Your task to perform on an android device: add a label to a message in the gmail app Image 0: 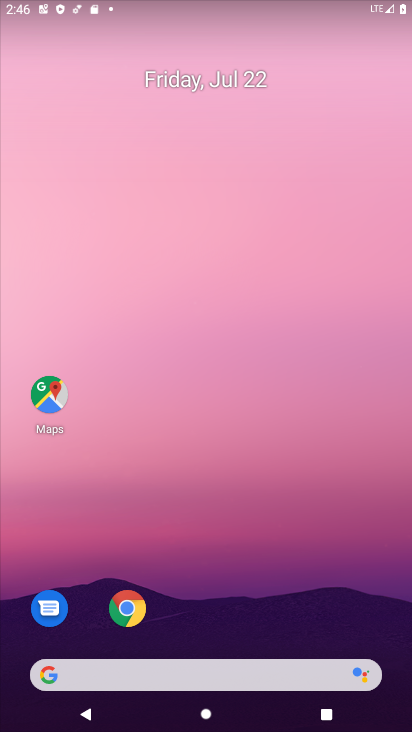
Step 0: drag from (301, 584) to (257, 139)
Your task to perform on an android device: add a label to a message in the gmail app Image 1: 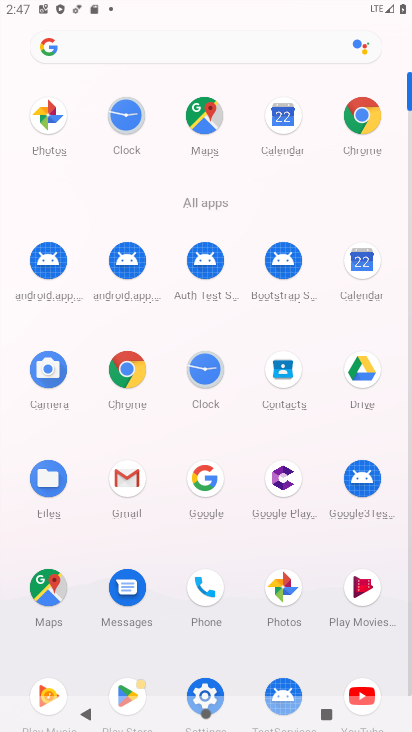
Step 1: click (121, 476)
Your task to perform on an android device: add a label to a message in the gmail app Image 2: 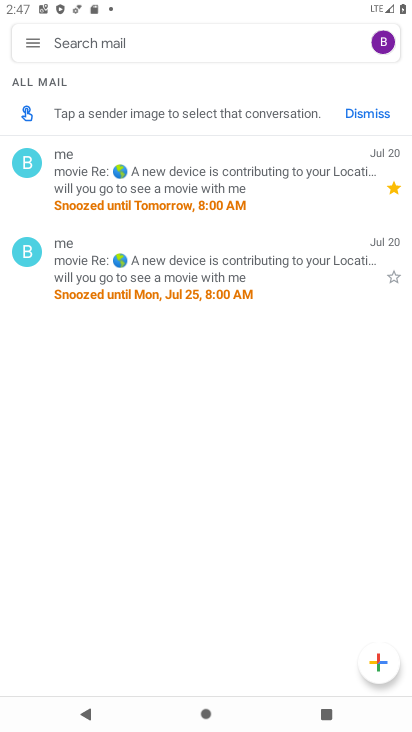
Step 2: click (191, 266)
Your task to perform on an android device: add a label to a message in the gmail app Image 3: 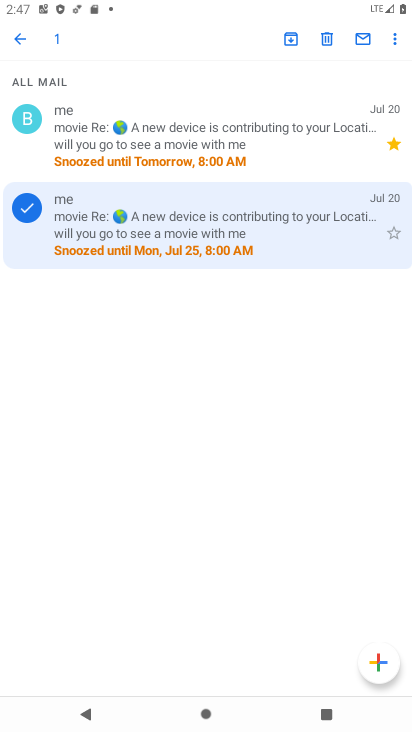
Step 3: click (397, 48)
Your task to perform on an android device: add a label to a message in the gmail app Image 4: 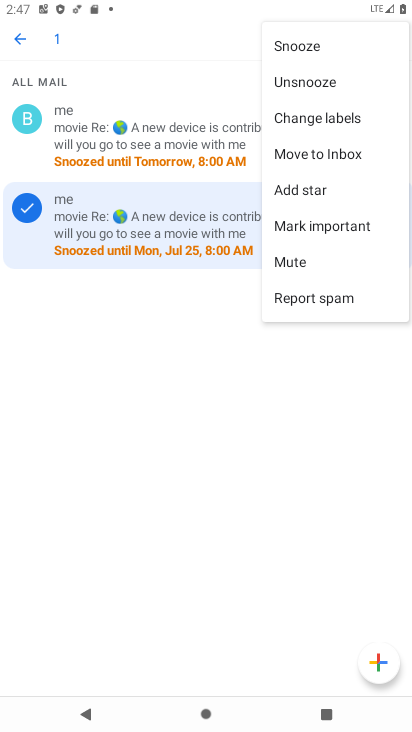
Step 4: click (347, 116)
Your task to perform on an android device: add a label to a message in the gmail app Image 5: 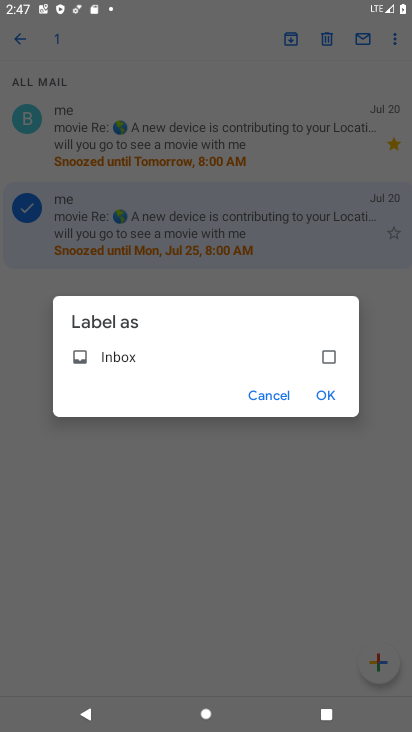
Step 5: click (331, 354)
Your task to perform on an android device: add a label to a message in the gmail app Image 6: 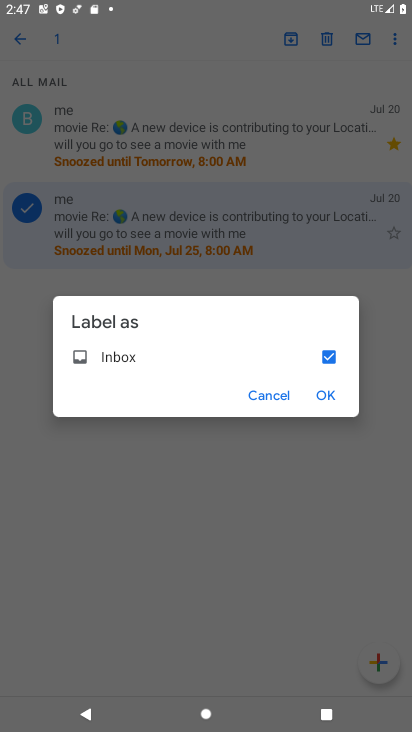
Step 6: click (327, 400)
Your task to perform on an android device: add a label to a message in the gmail app Image 7: 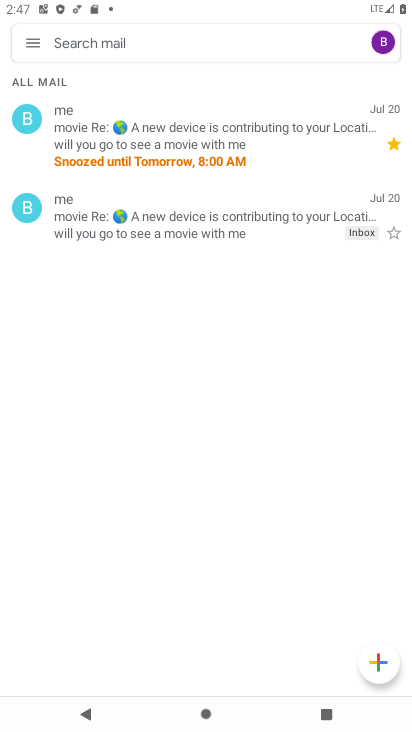
Step 7: task complete